Your task to perform on an android device: toggle priority inbox in the gmail app Image 0: 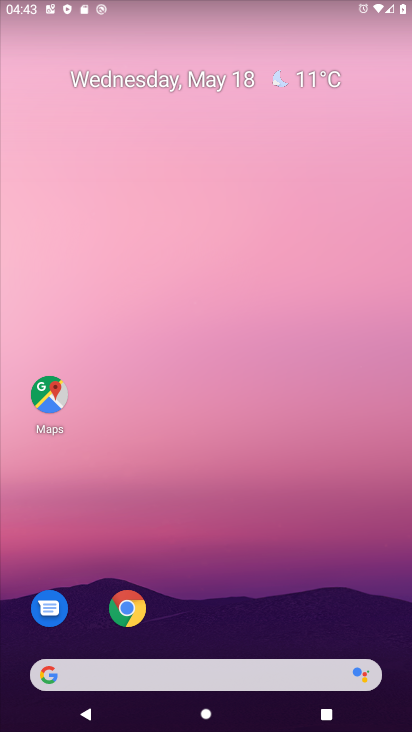
Step 0: drag from (193, 621) to (405, 4)
Your task to perform on an android device: toggle priority inbox in the gmail app Image 1: 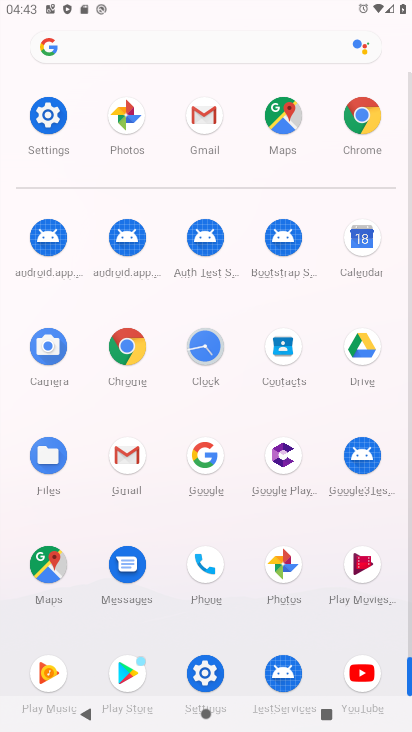
Step 1: click (206, 137)
Your task to perform on an android device: toggle priority inbox in the gmail app Image 2: 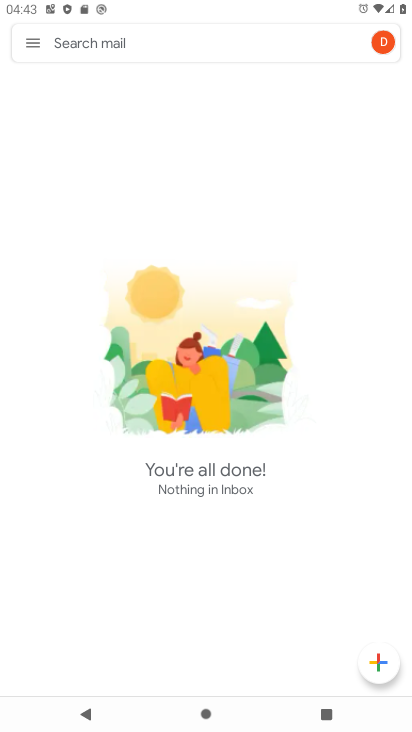
Step 2: click (29, 42)
Your task to perform on an android device: toggle priority inbox in the gmail app Image 3: 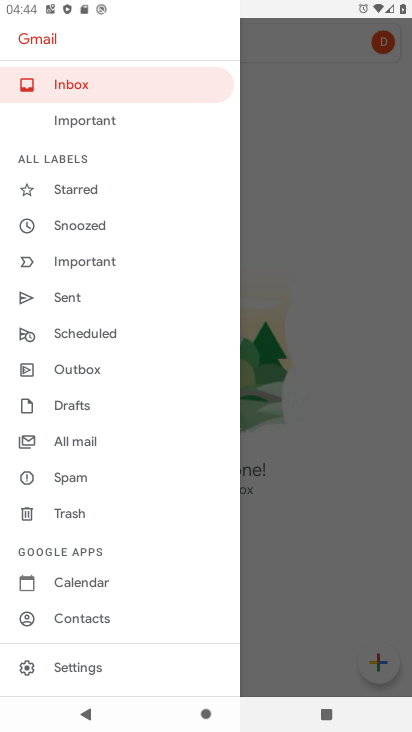
Step 3: click (93, 677)
Your task to perform on an android device: toggle priority inbox in the gmail app Image 4: 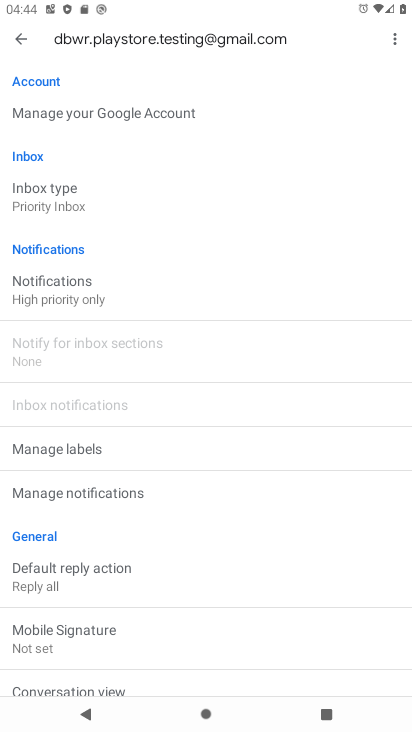
Step 4: click (105, 188)
Your task to perform on an android device: toggle priority inbox in the gmail app Image 5: 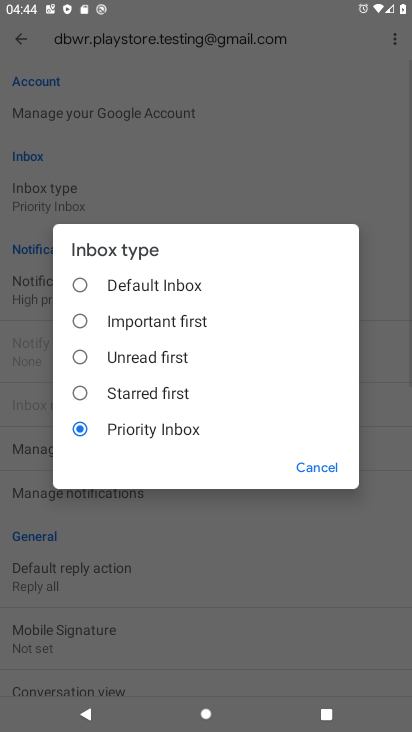
Step 5: click (135, 285)
Your task to perform on an android device: toggle priority inbox in the gmail app Image 6: 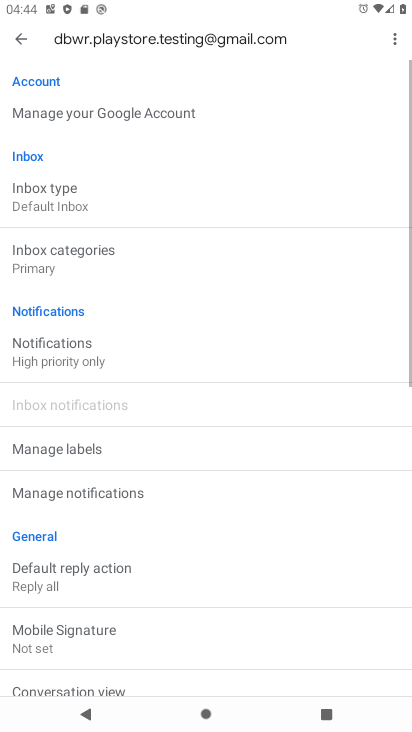
Step 6: task complete